Your task to perform on an android device: Go to accessibility settings Image 0: 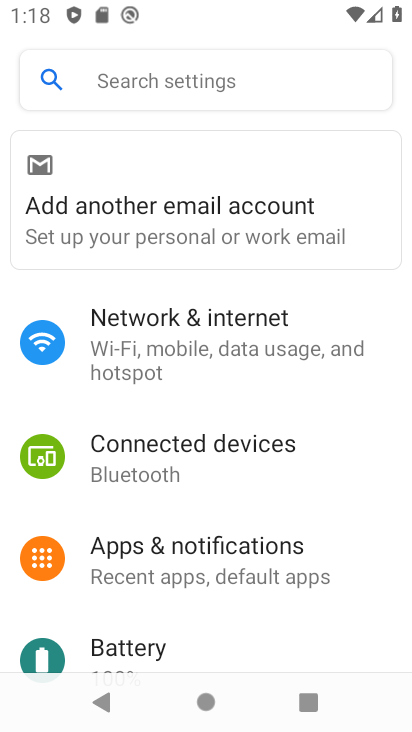
Step 0: drag from (282, 616) to (283, 232)
Your task to perform on an android device: Go to accessibility settings Image 1: 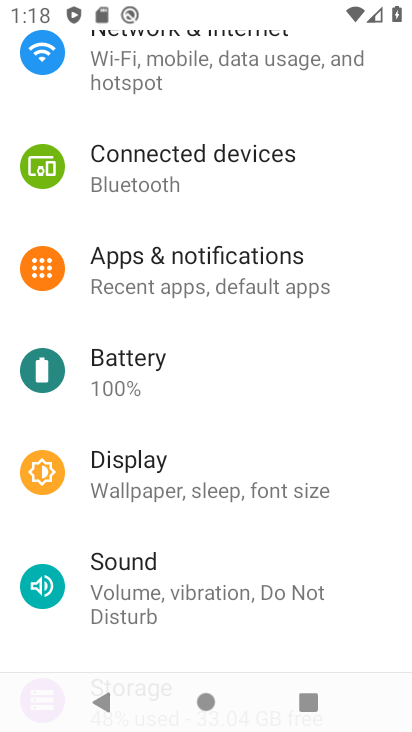
Step 1: drag from (175, 612) to (175, 180)
Your task to perform on an android device: Go to accessibility settings Image 2: 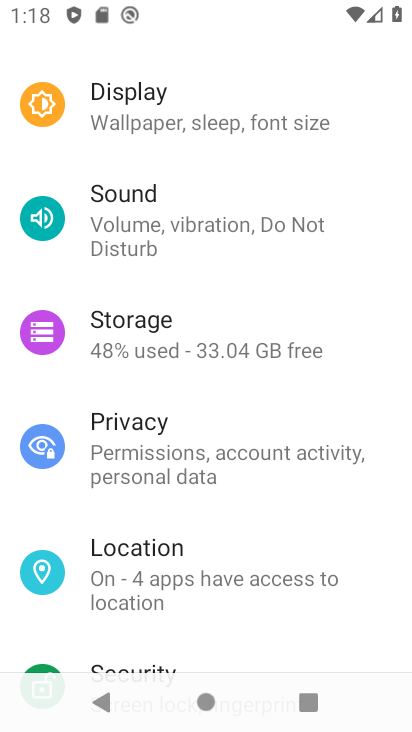
Step 2: drag from (163, 620) to (143, 169)
Your task to perform on an android device: Go to accessibility settings Image 3: 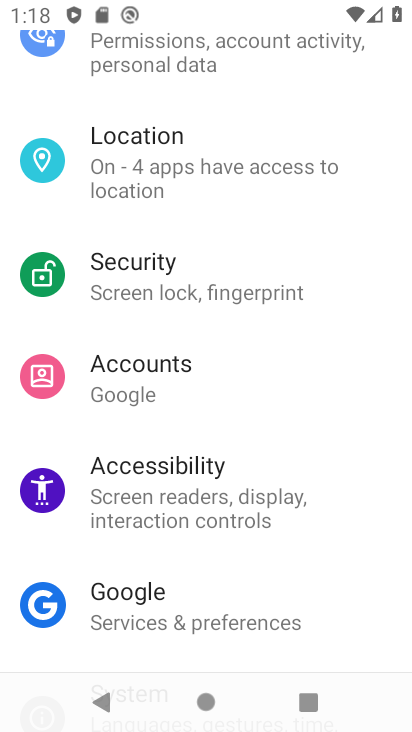
Step 3: click (142, 500)
Your task to perform on an android device: Go to accessibility settings Image 4: 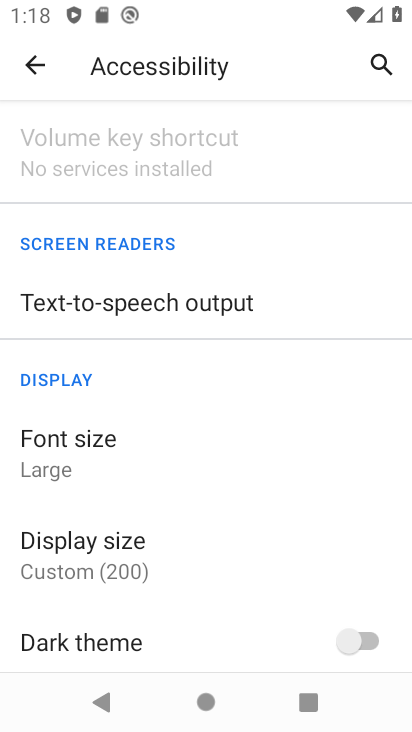
Step 4: task complete